Your task to perform on an android device: Open Youtube and go to the subscriptions tab Image 0: 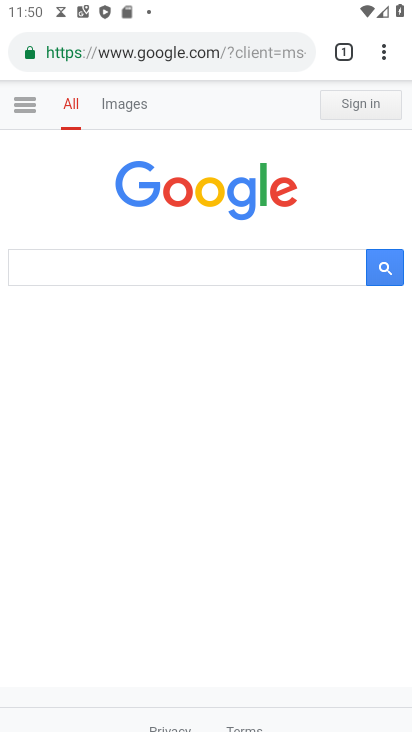
Step 0: press home button
Your task to perform on an android device: Open Youtube and go to the subscriptions tab Image 1: 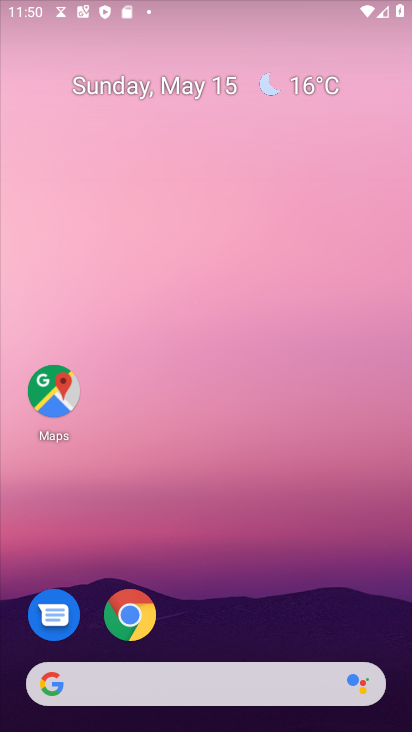
Step 1: drag from (285, 626) to (339, 195)
Your task to perform on an android device: Open Youtube and go to the subscriptions tab Image 2: 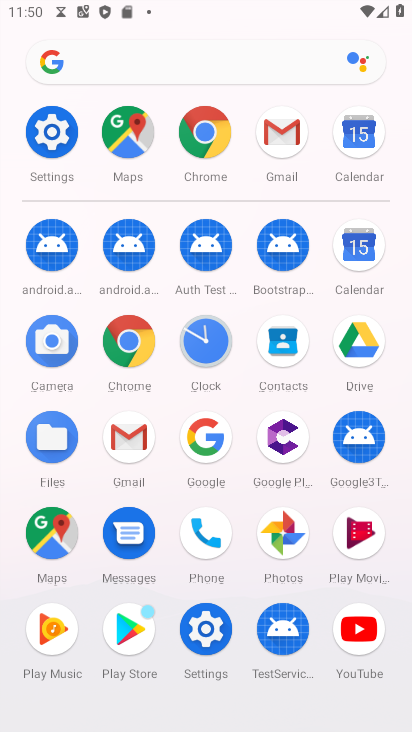
Step 2: click (347, 646)
Your task to perform on an android device: Open Youtube and go to the subscriptions tab Image 3: 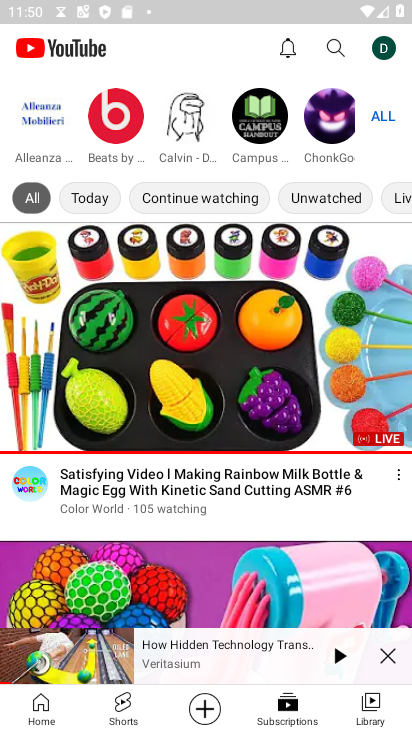
Step 3: click (368, 51)
Your task to perform on an android device: Open Youtube and go to the subscriptions tab Image 4: 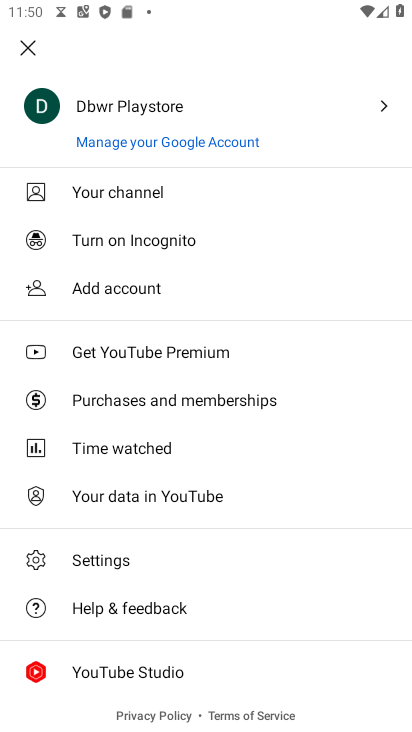
Step 4: click (17, 49)
Your task to perform on an android device: Open Youtube and go to the subscriptions tab Image 5: 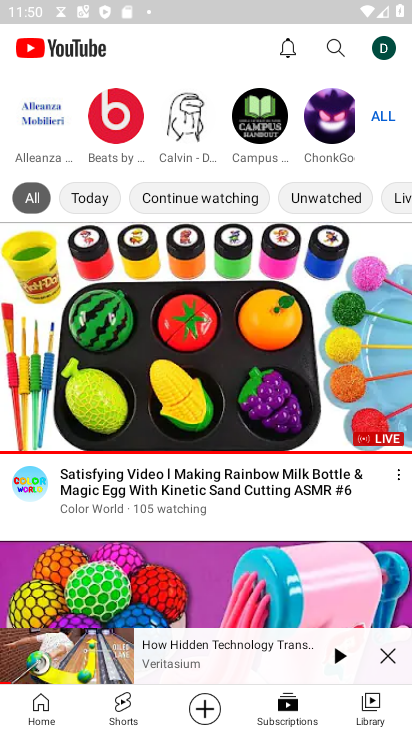
Step 5: click (298, 695)
Your task to perform on an android device: Open Youtube and go to the subscriptions tab Image 6: 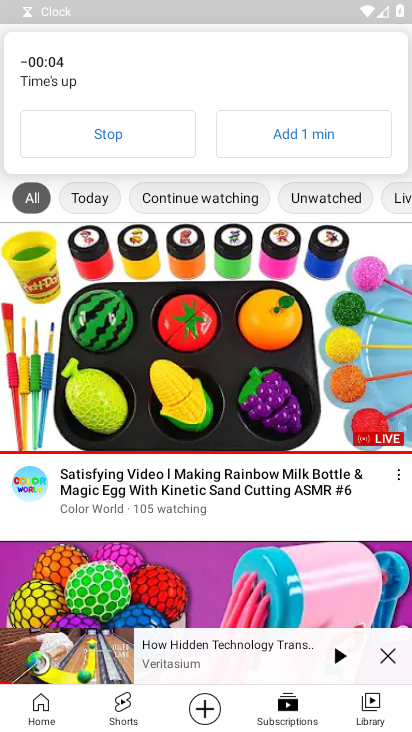
Step 6: task complete